Your task to perform on an android device: Check out the new ikea catalog. Image 0: 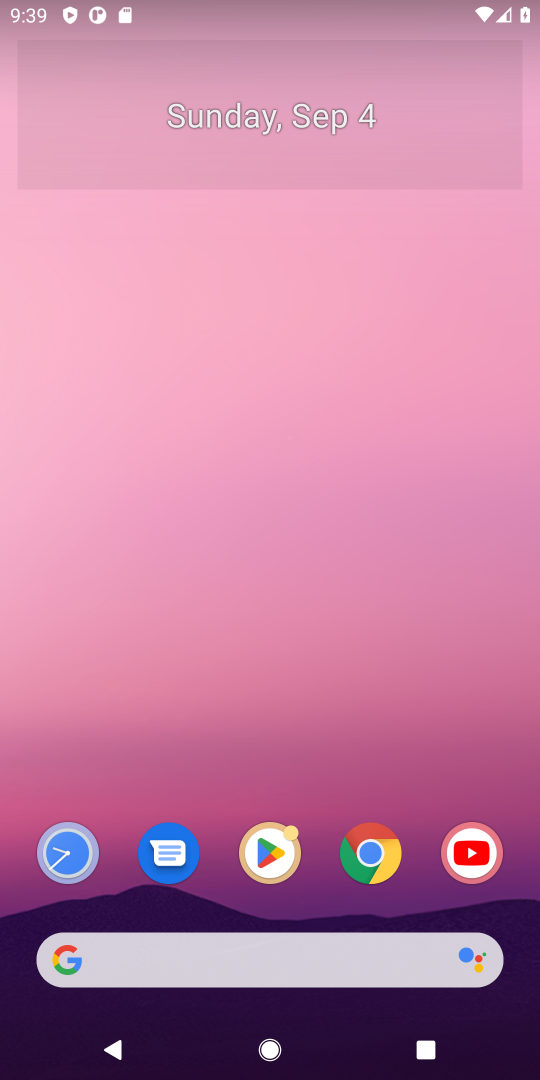
Step 0: click (370, 863)
Your task to perform on an android device: Check out the new ikea catalog. Image 1: 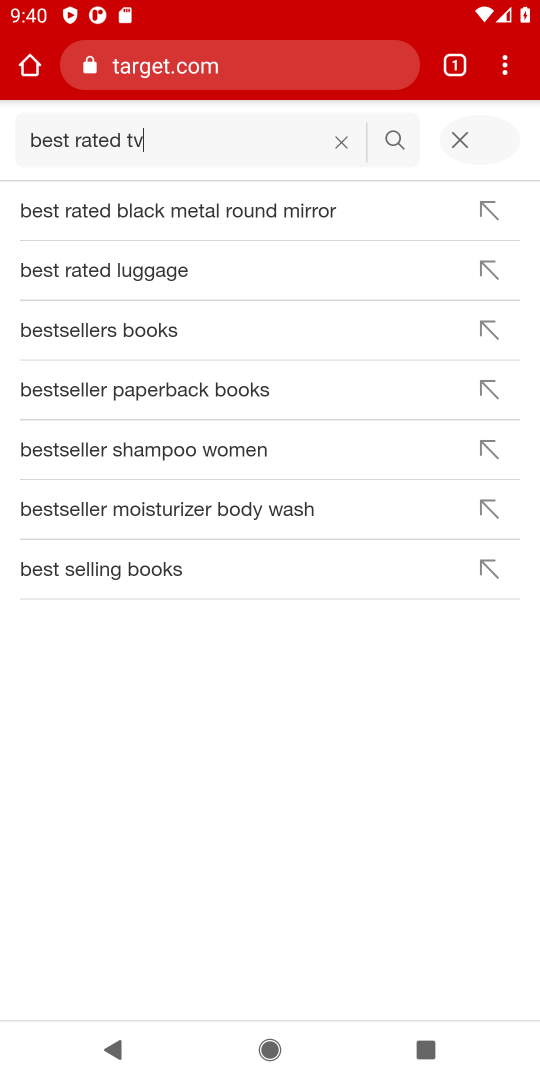
Step 1: click (302, 63)
Your task to perform on an android device: Check out the new ikea catalog. Image 2: 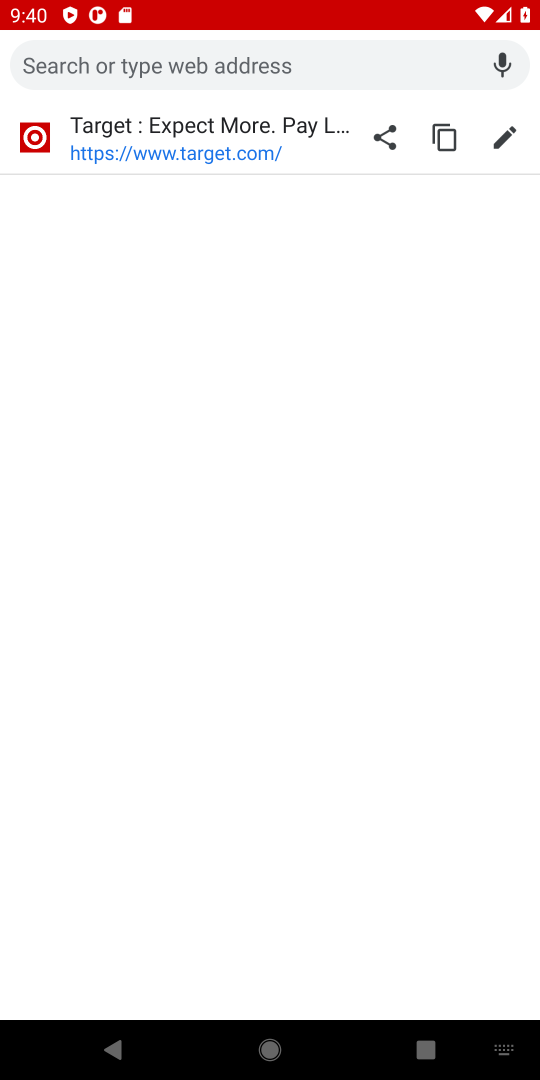
Step 2: type "ikea"
Your task to perform on an android device: Check out the new ikea catalog. Image 3: 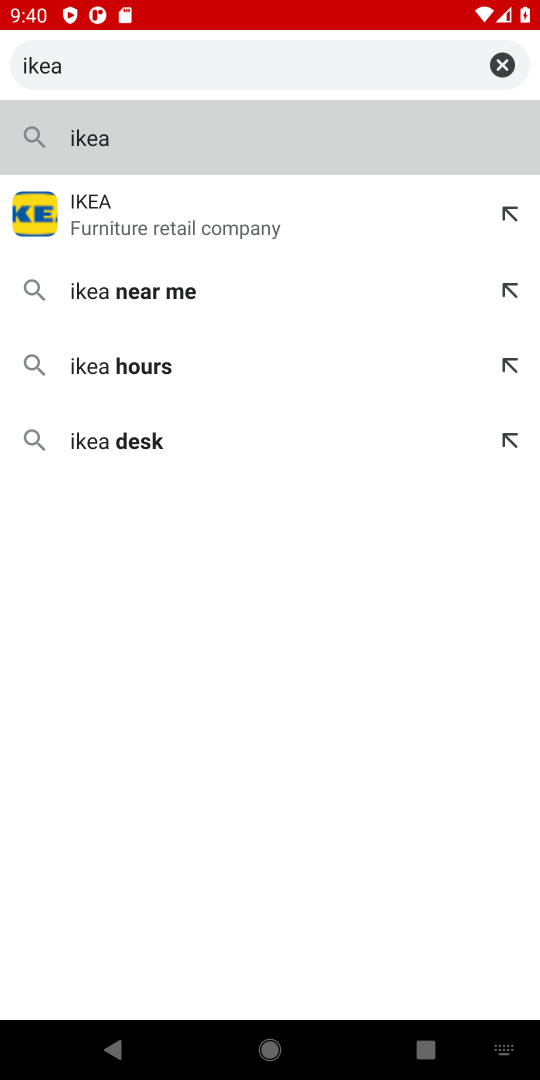
Step 3: click (320, 215)
Your task to perform on an android device: Check out the new ikea catalog. Image 4: 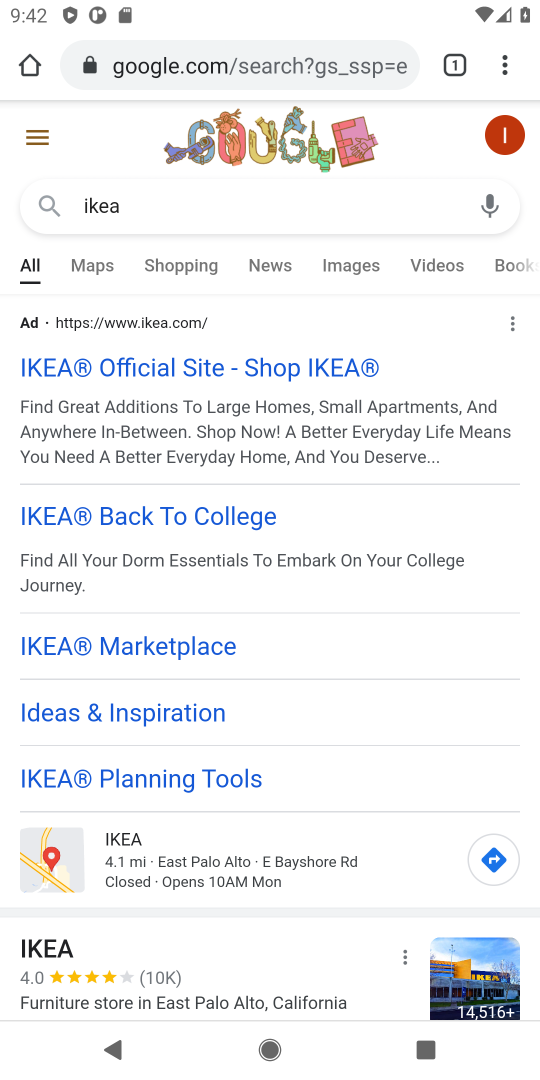
Step 4: click (118, 372)
Your task to perform on an android device: Check out the new ikea catalog. Image 5: 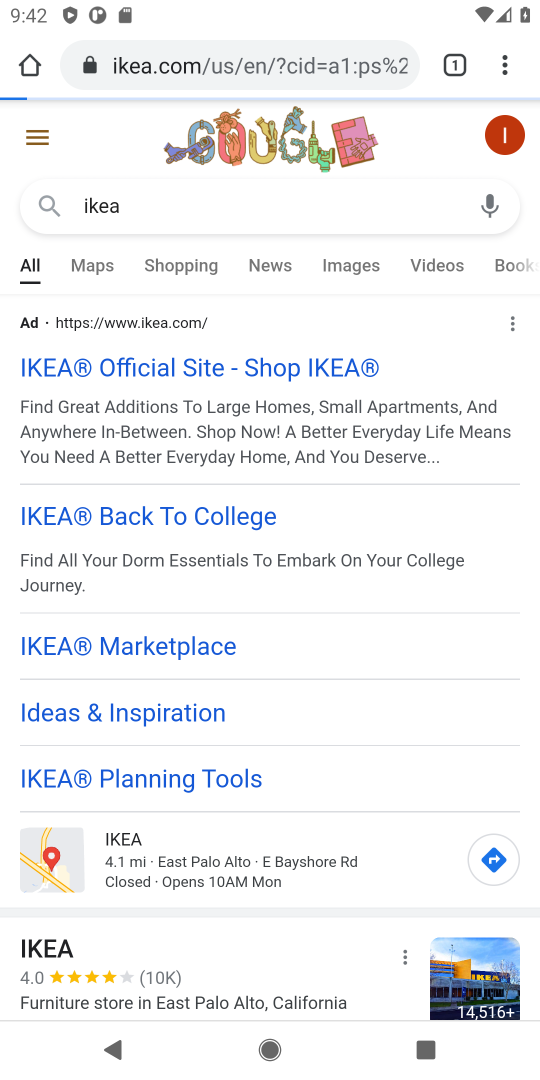
Step 5: task complete